Your task to perform on an android device: Empty the shopping cart on costco.com. Image 0: 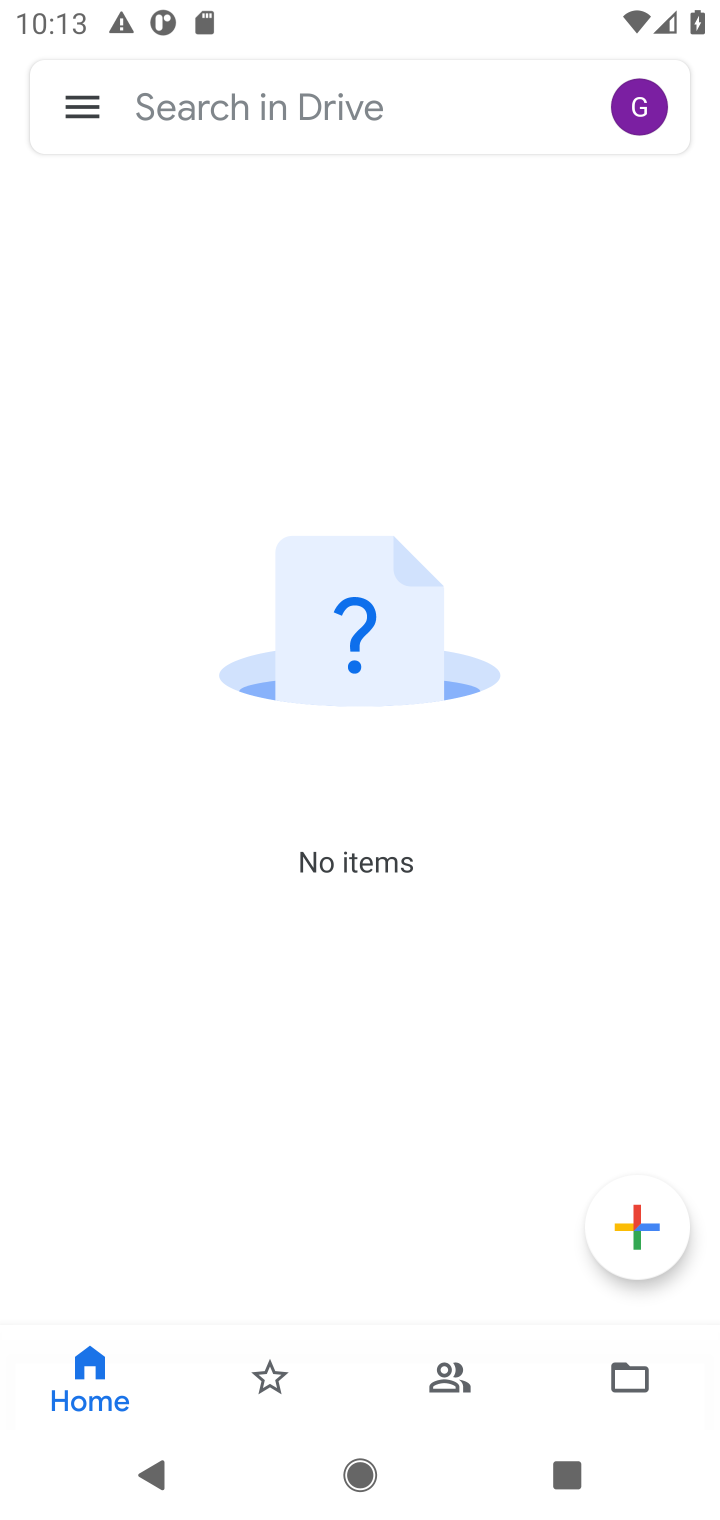
Step 0: press home button
Your task to perform on an android device: Empty the shopping cart on costco.com. Image 1: 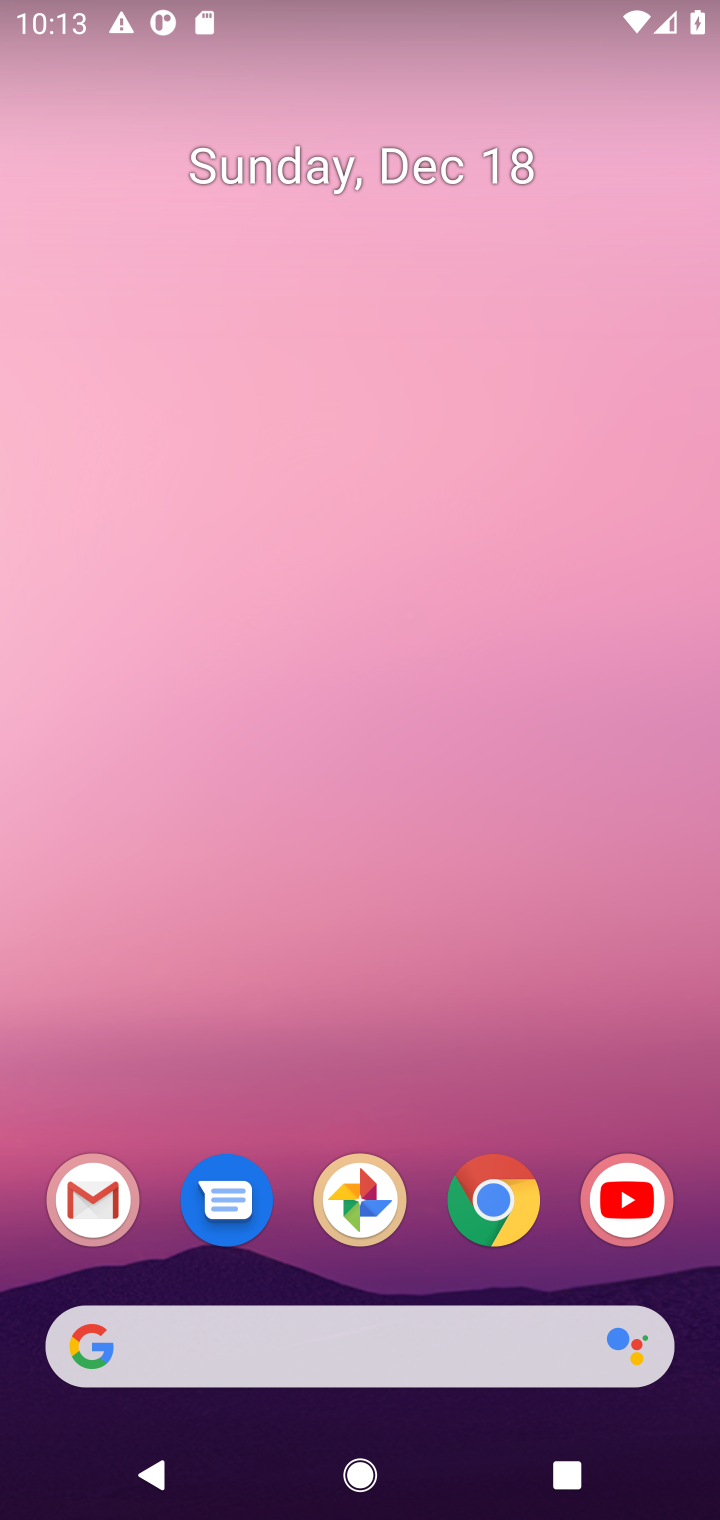
Step 1: click (489, 1212)
Your task to perform on an android device: Empty the shopping cart on costco.com. Image 2: 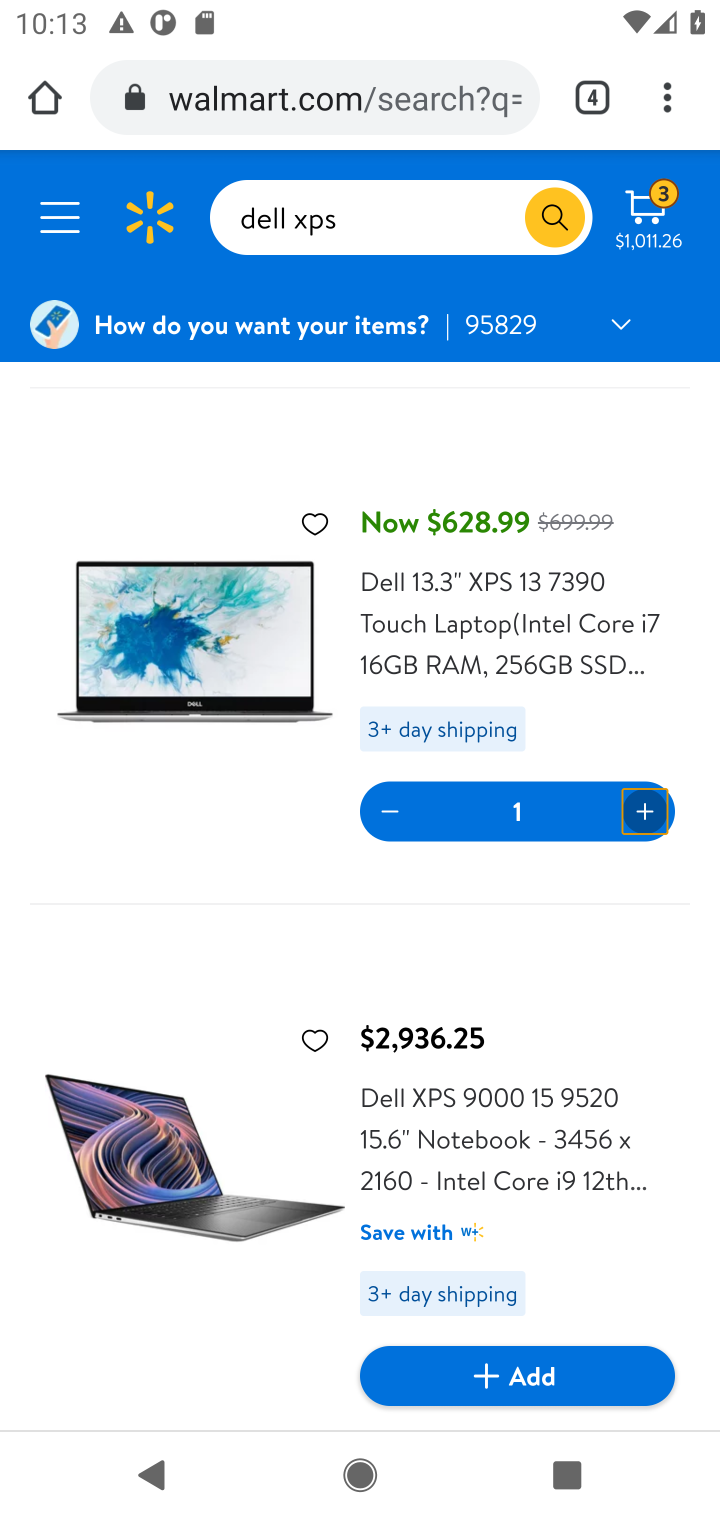
Step 2: click (298, 105)
Your task to perform on an android device: Empty the shopping cart on costco.com. Image 3: 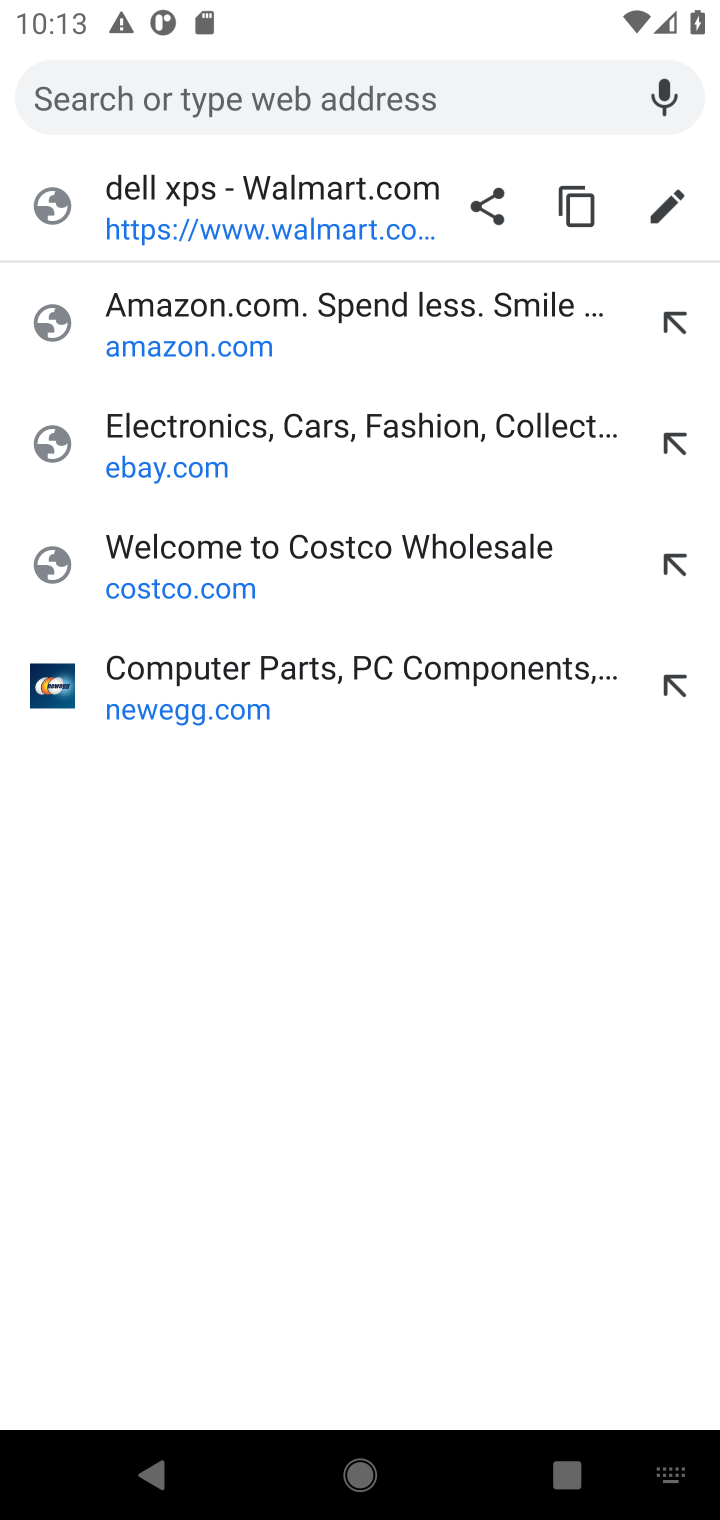
Step 3: click (147, 593)
Your task to perform on an android device: Empty the shopping cart on costco.com. Image 4: 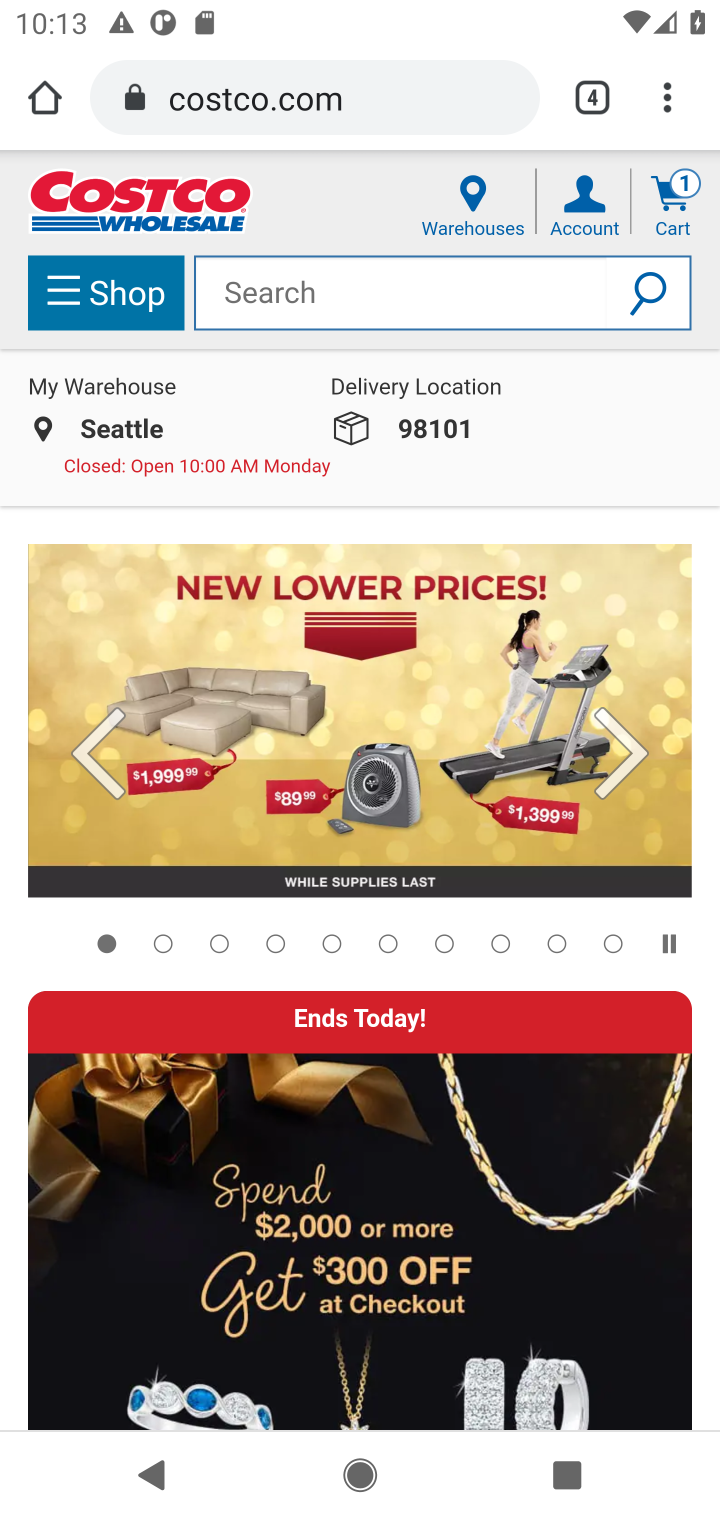
Step 4: click (671, 206)
Your task to perform on an android device: Empty the shopping cart on costco.com. Image 5: 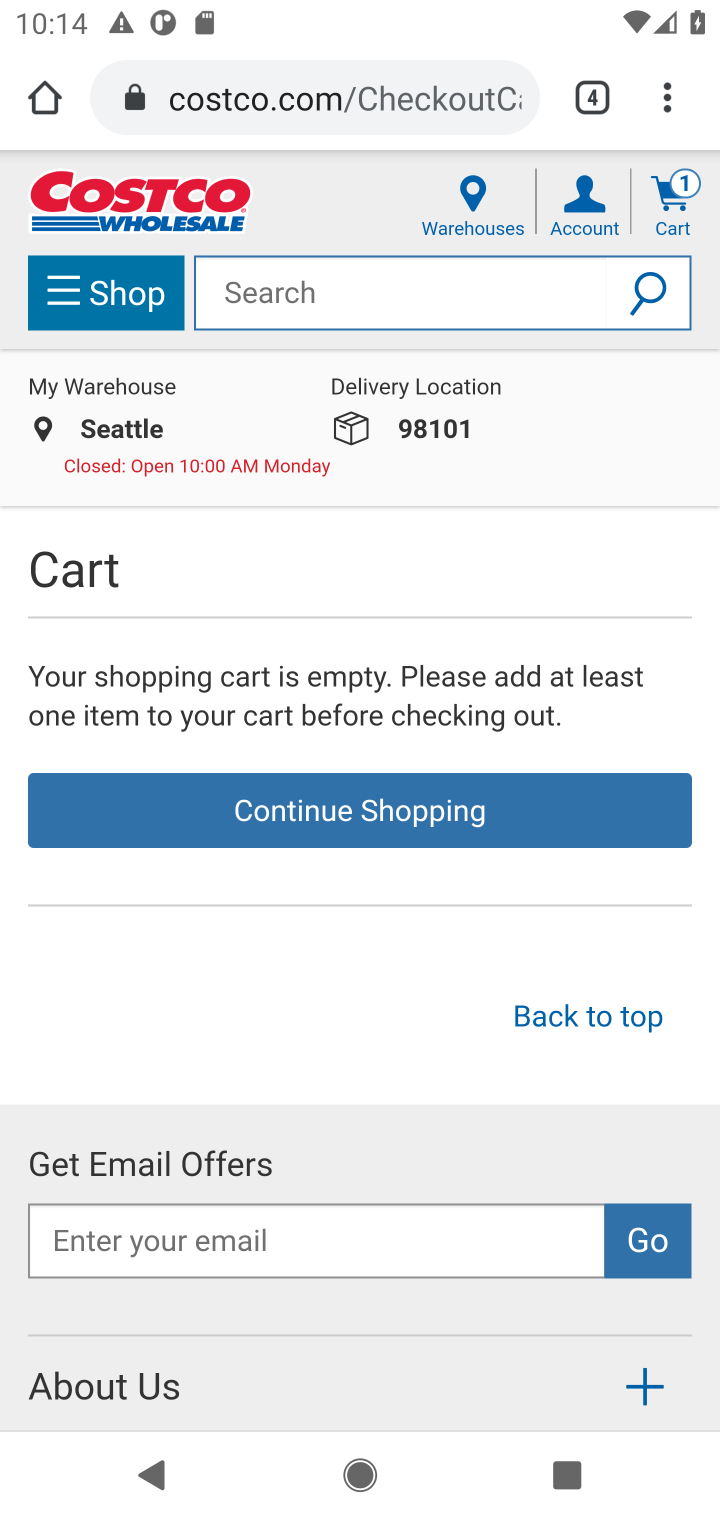
Step 5: task complete